Your task to perform on an android device: Turn off the flashlight Image 0: 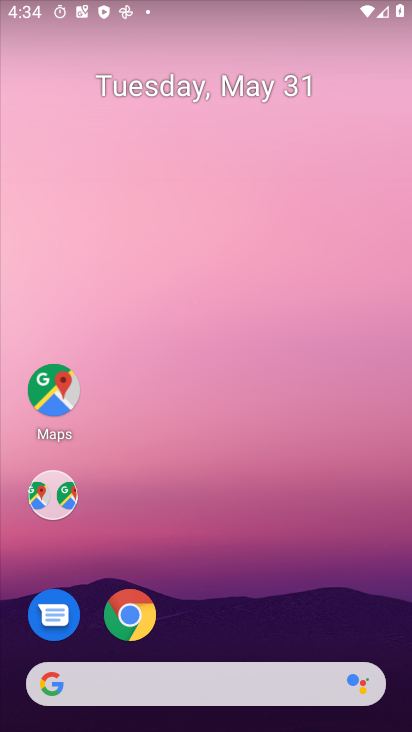
Step 0: drag from (317, 677) to (189, 178)
Your task to perform on an android device: Turn off the flashlight Image 1: 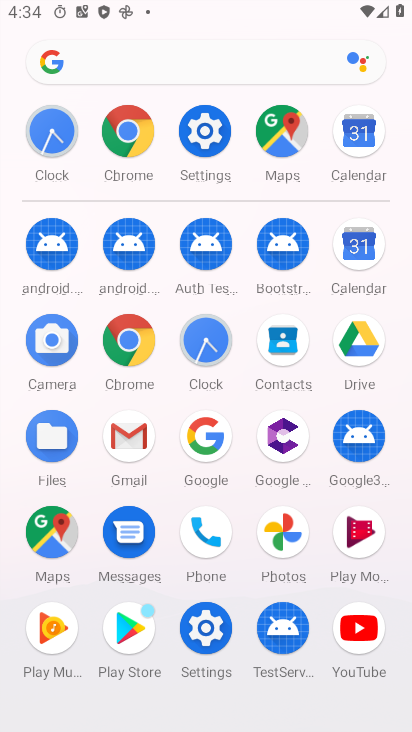
Step 1: task complete